Your task to perform on an android device: check google app version Image 0: 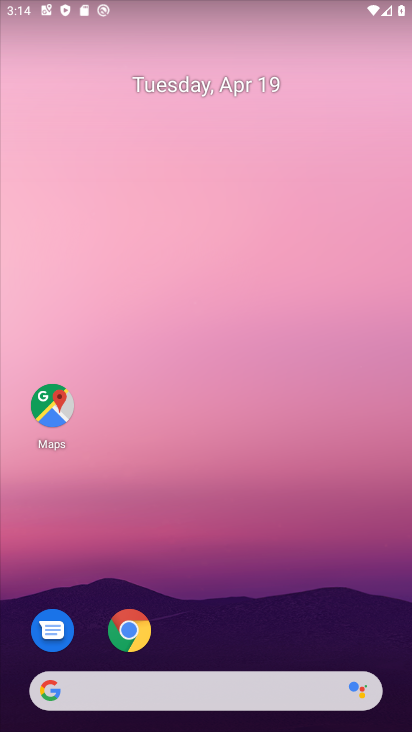
Step 0: drag from (347, 521) to (289, 82)
Your task to perform on an android device: check google app version Image 1: 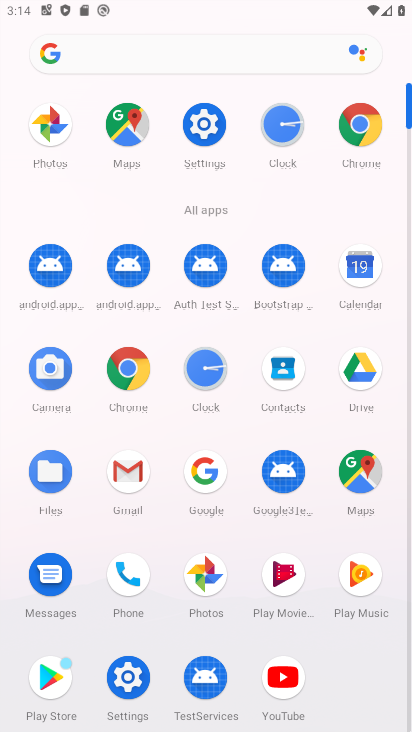
Step 1: click (194, 474)
Your task to perform on an android device: check google app version Image 2: 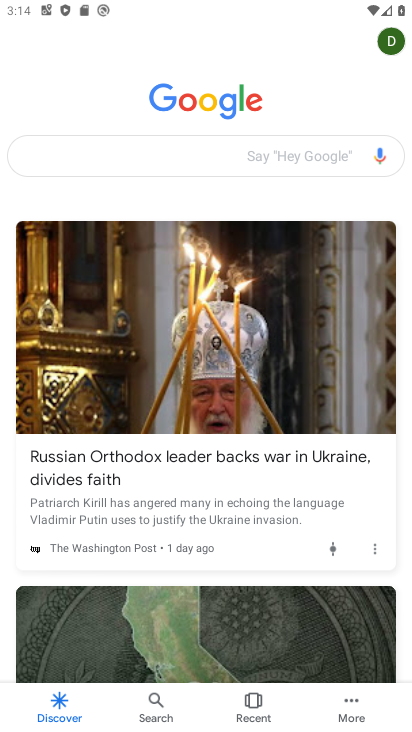
Step 2: click (390, 41)
Your task to perform on an android device: check google app version Image 3: 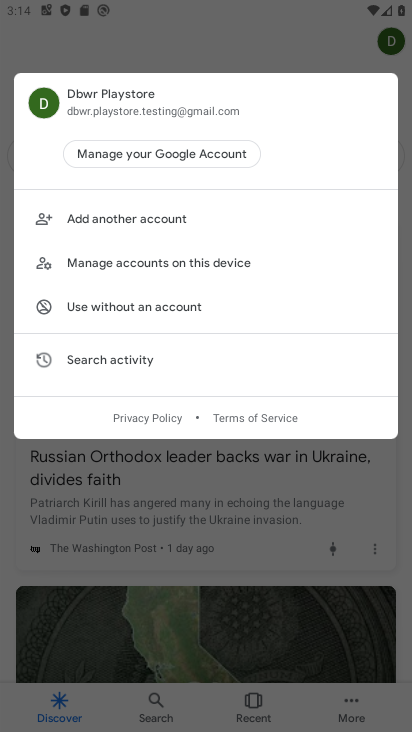
Step 3: click (246, 65)
Your task to perform on an android device: check google app version Image 4: 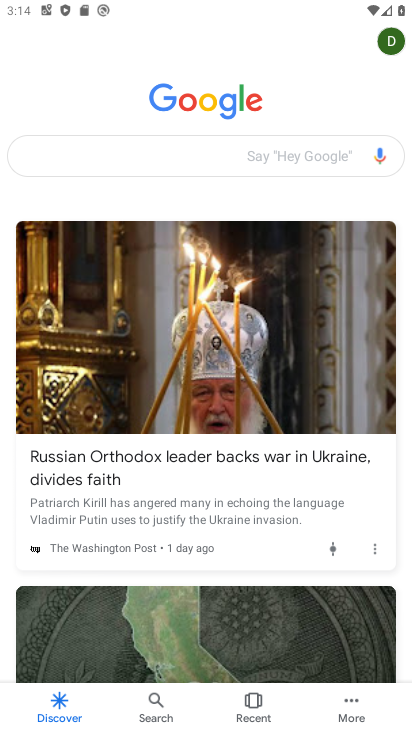
Step 4: click (343, 715)
Your task to perform on an android device: check google app version Image 5: 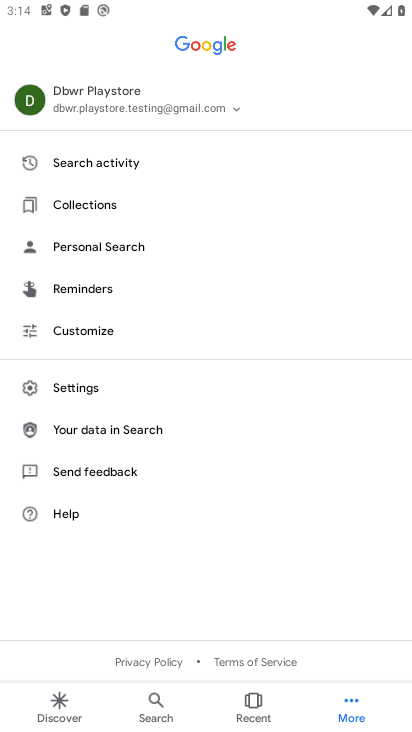
Step 5: click (68, 385)
Your task to perform on an android device: check google app version Image 6: 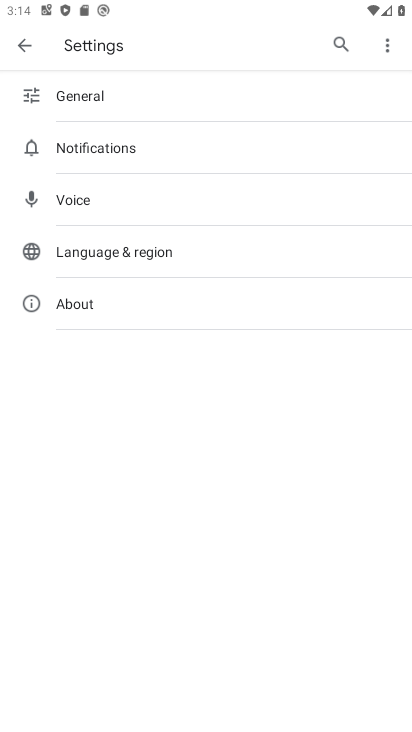
Step 6: click (68, 304)
Your task to perform on an android device: check google app version Image 7: 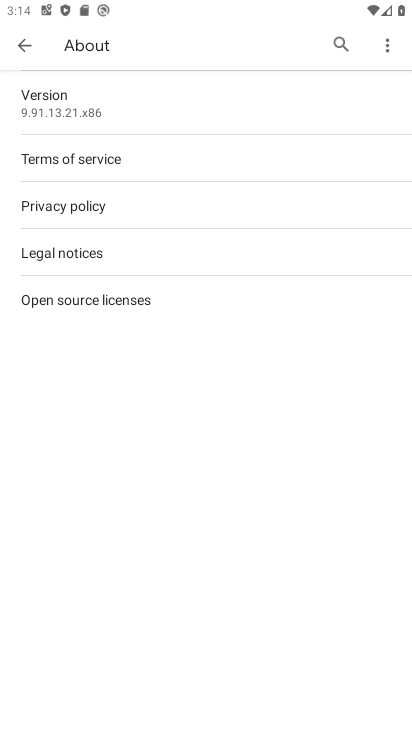
Step 7: click (73, 95)
Your task to perform on an android device: check google app version Image 8: 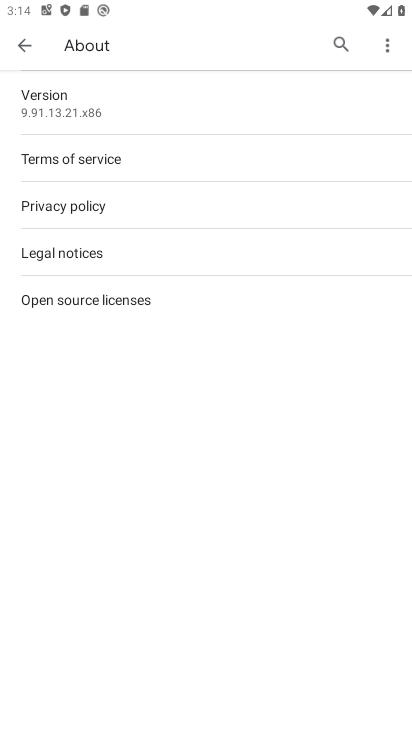
Step 8: task complete